Your task to perform on an android device: Do I have any events today? Image 0: 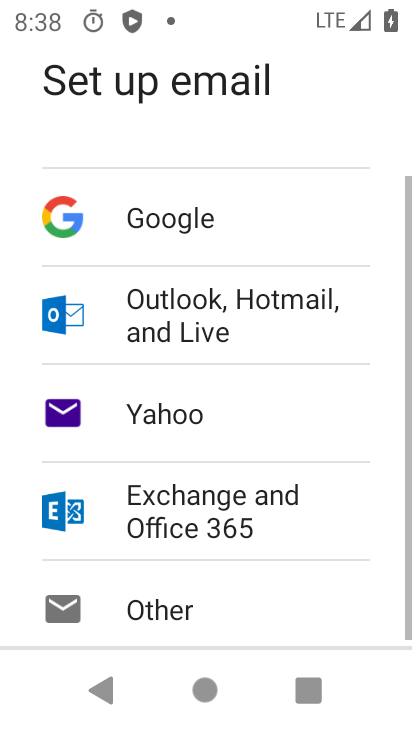
Step 0: drag from (260, 540) to (356, 230)
Your task to perform on an android device: Do I have any events today? Image 1: 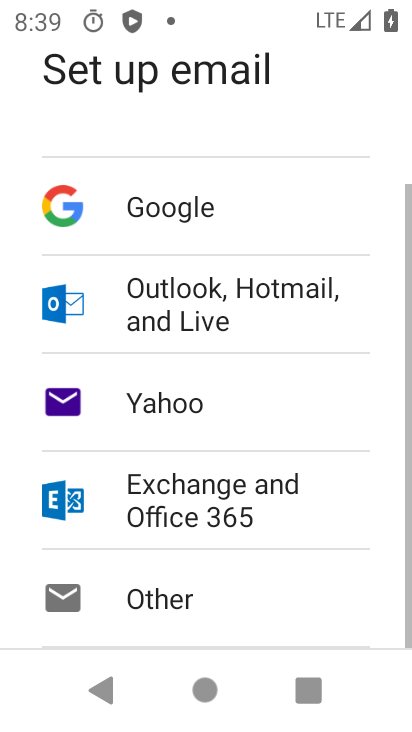
Step 1: press home button
Your task to perform on an android device: Do I have any events today? Image 2: 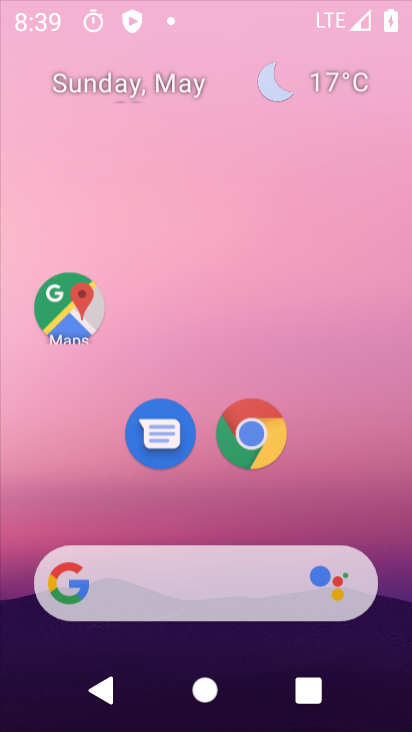
Step 2: drag from (270, 538) to (411, 83)
Your task to perform on an android device: Do I have any events today? Image 3: 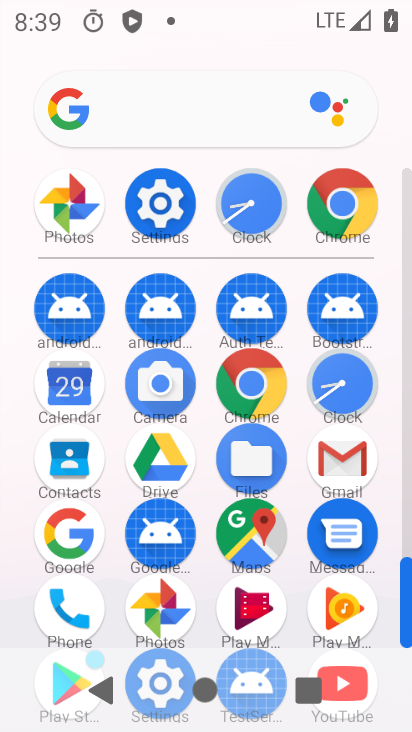
Step 3: click (69, 381)
Your task to perform on an android device: Do I have any events today? Image 4: 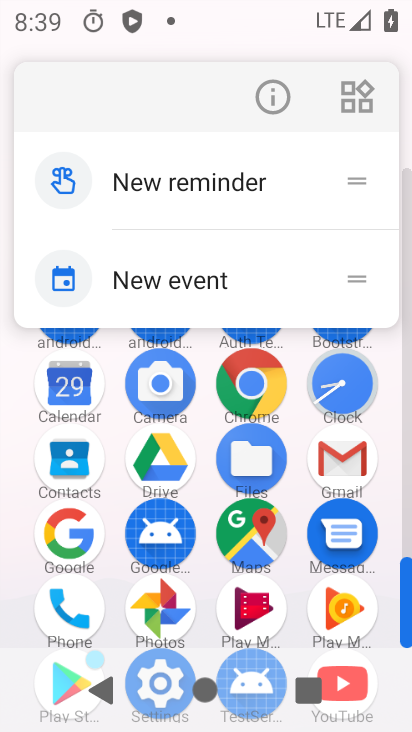
Step 4: click (66, 379)
Your task to perform on an android device: Do I have any events today? Image 5: 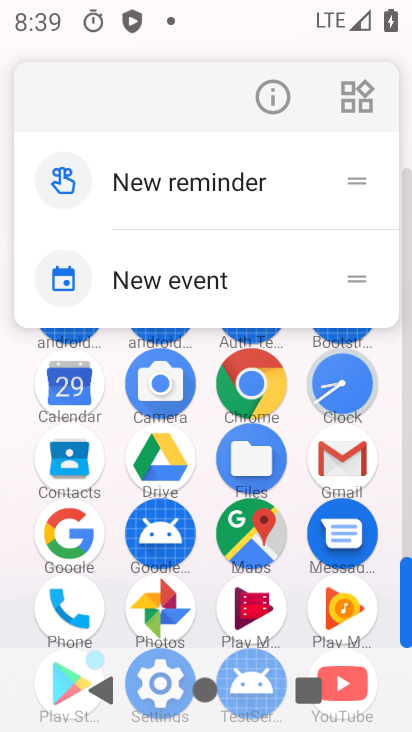
Step 5: click (276, 117)
Your task to perform on an android device: Do I have any events today? Image 6: 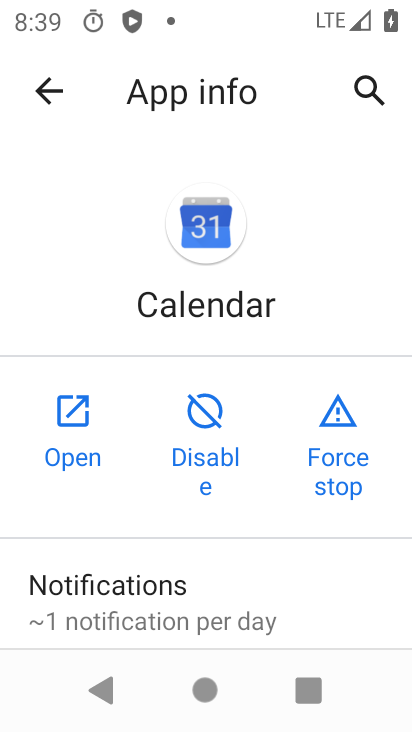
Step 6: click (74, 410)
Your task to perform on an android device: Do I have any events today? Image 7: 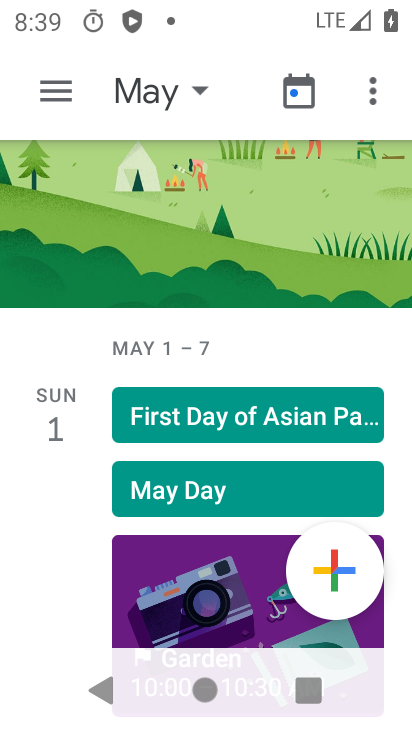
Step 7: click (201, 104)
Your task to perform on an android device: Do I have any events today? Image 8: 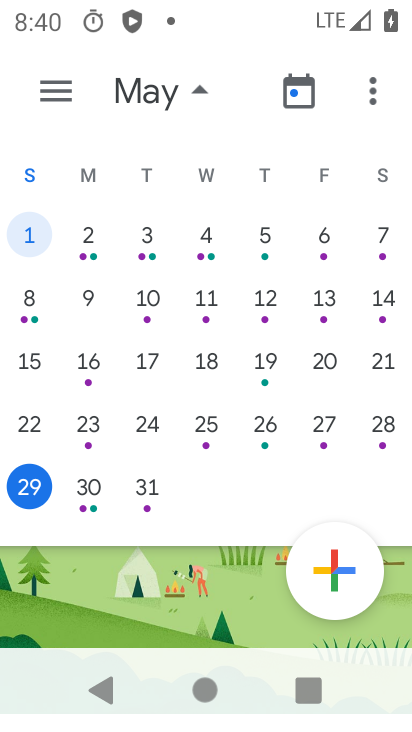
Step 8: click (49, 487)
Your task to perform on an android device: Do I have any events today? Image 9: 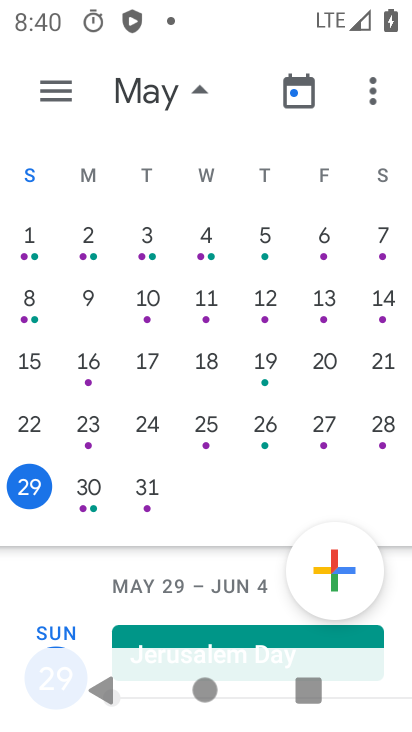
Step 9: task complete